Your task to perform on an android device: allow notifications from all sites in the chrome app Image 0: 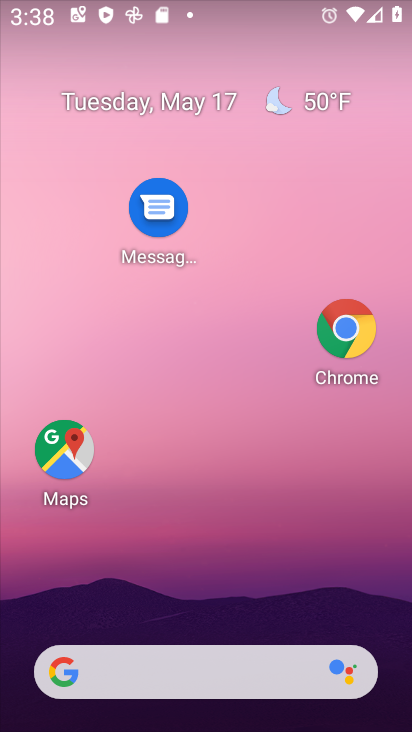
Step 0: click (347, 355)
Your task to perform on an android device: allow notifications from all sites in the chrome app Image 1: 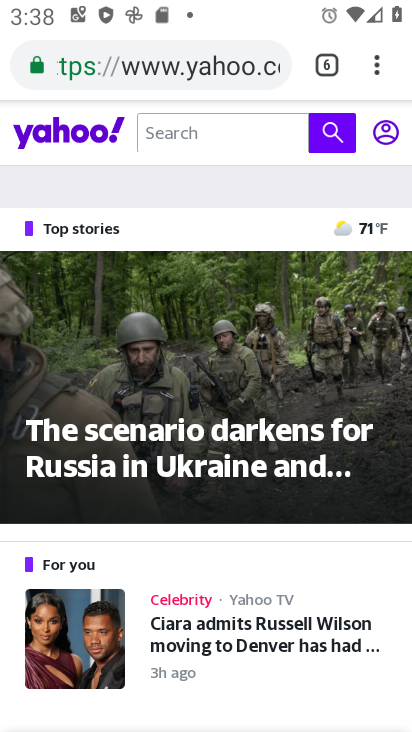
Step 1: click (388, 71)
Your task to perform on an android device: allow notifications from all sites in the chrome app Image 2: 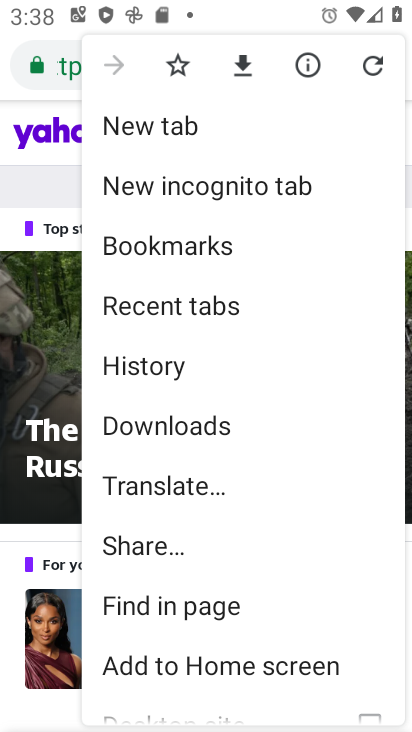
Step 2: drag from (148, 613) to (202, 305)
Your task to perform on an android device: allow notifications from all sites in the chrome app Image 3: 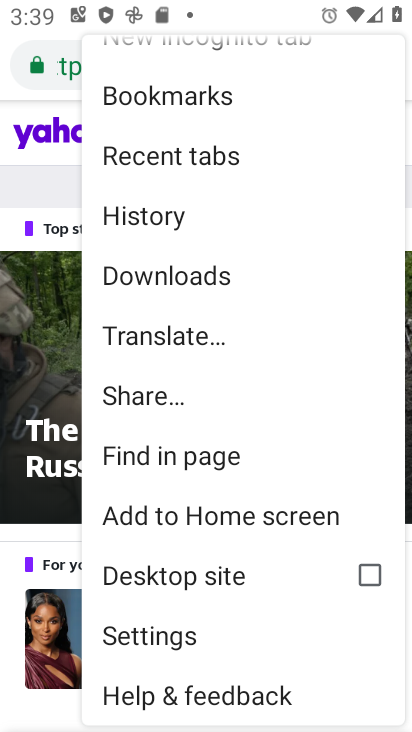
Step 3: click (143, 651)
Your task to perform on an android device: allow notifications from all sites in the chrome app Image 4: 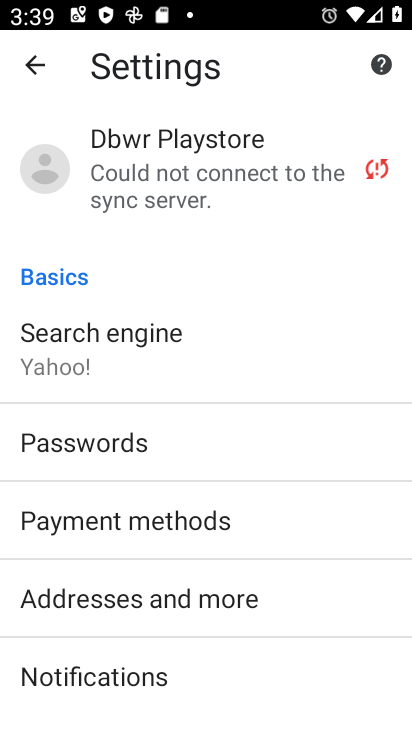
Step 4: drag from (172, 607) to (224, 356)
Your task to perform on an android device: allow notifications from all sites in the chrome app Image 5: 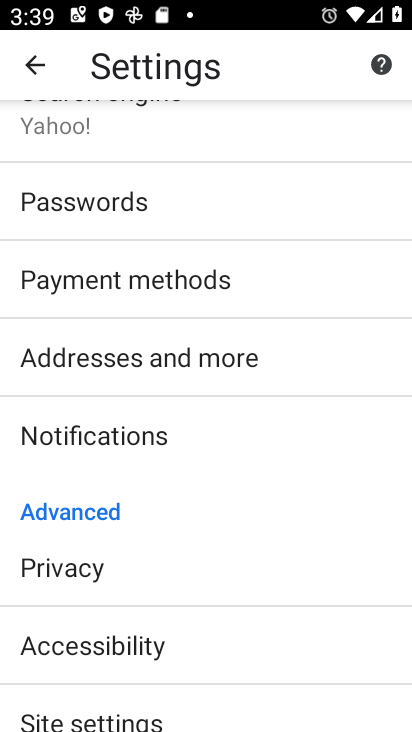
Step 5: drag from (148, 536) to (159, 403)
Your task to perform on an android device: allow notifications from all sites in the chrome app Image 6: 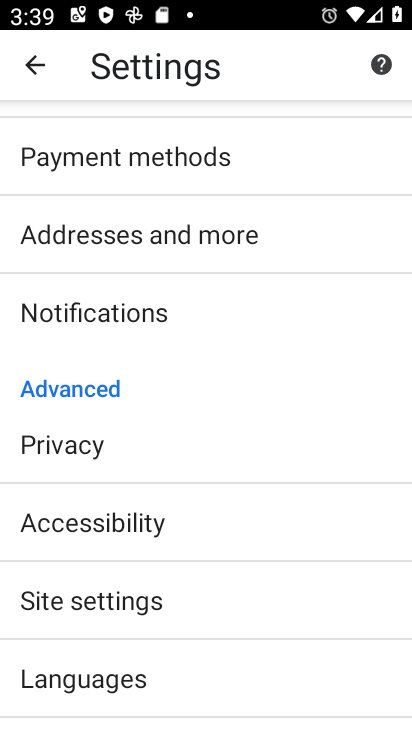
Step 6: drag from (177, 609) to (273, 421)
Your task to perform on an android device: allow notifications from all sites in the chrome app Image 7: 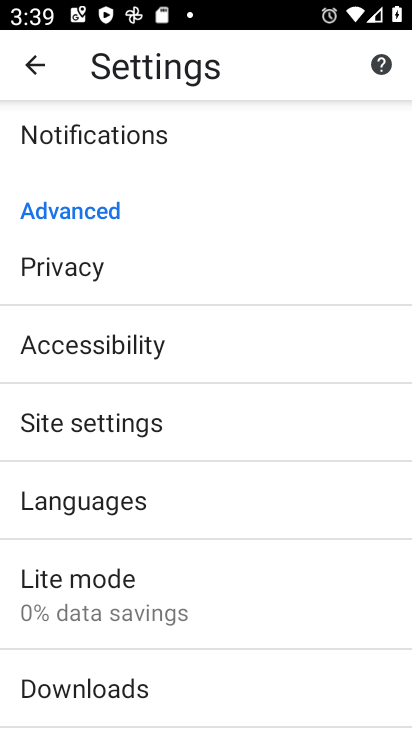
Step 7: click (216, 410)
Your task to perform on an android device: allow notifications from all sites in the chrome app Image 8: 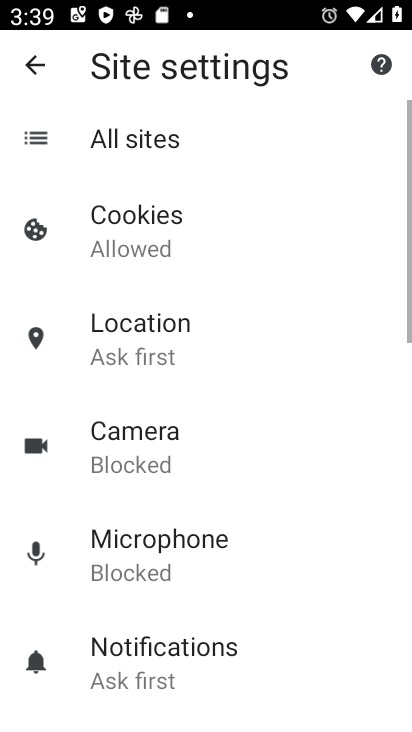
Step 8: task complete